Your task to perform on an android device: Open Google Maps Image 0: 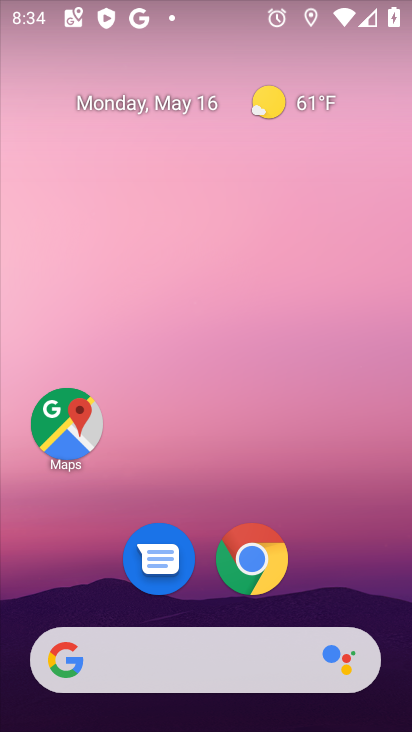
Step 0: drag from (334, 562) to (343, 142)
Your task to perform on an android device: Open Google Maps Image 1: 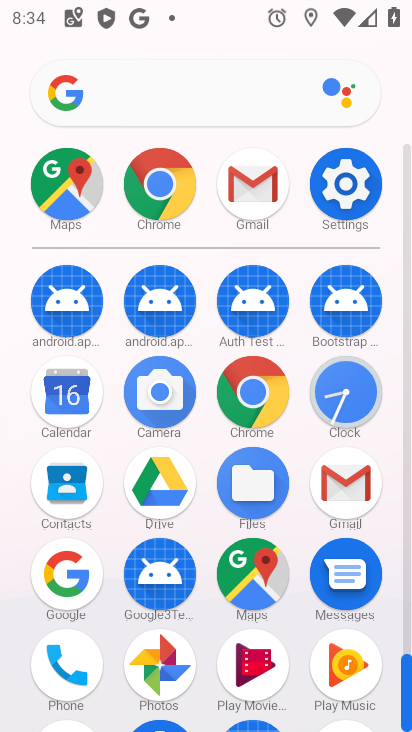
Step 1: click (69, 189)
Your task to perform on an android device: Open Google Maps Image 2: 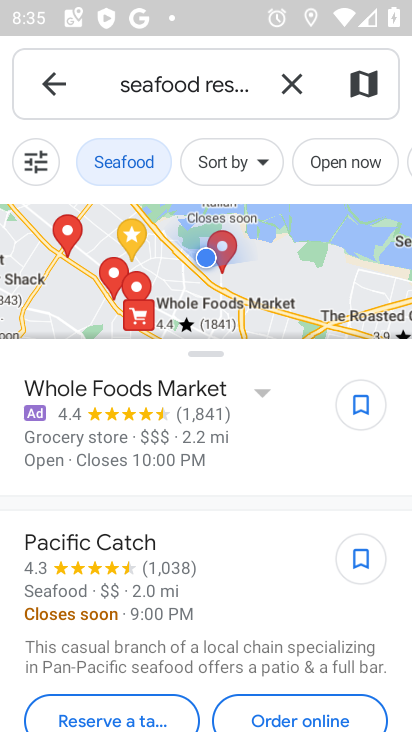
Step 2: task complete